Your task to perform on an android device: Go to battery settings Image 0: 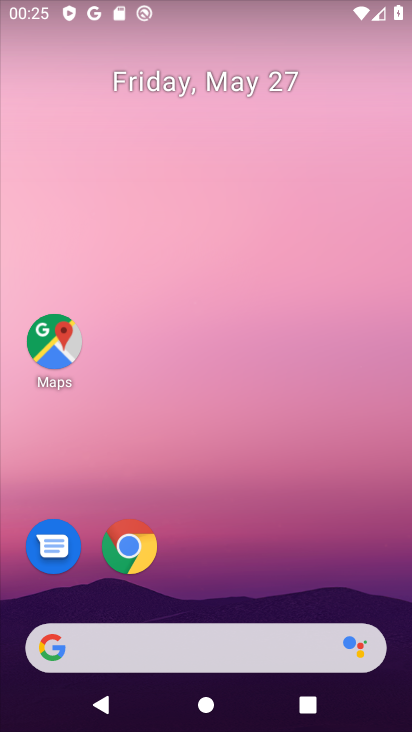
Step 0: drag from (297, 536) to (232, 58)
Your task to perform on an android device: Go to battery settings Image 1: 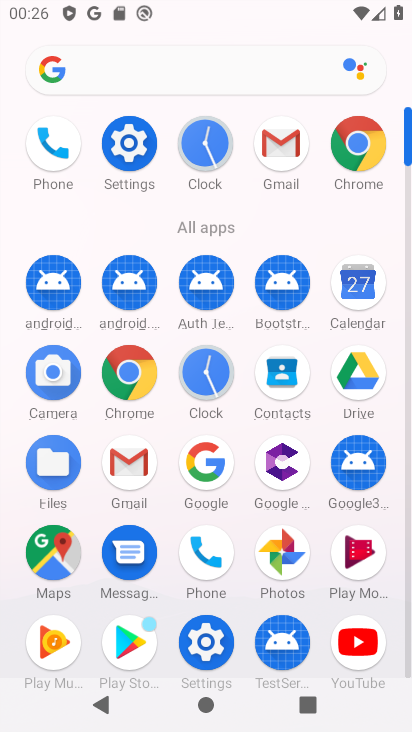
Step 1: click (195, 643)
Your task to perform on an android device: Go to battery settings Image 2: 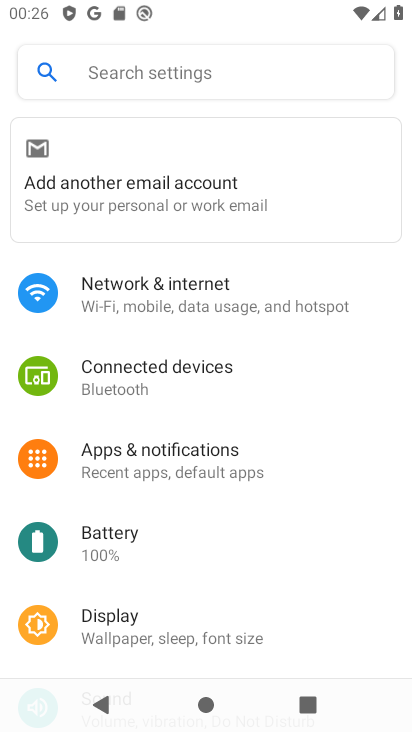
Step 2: drag from (212, 640) to (199, 273)
Your task to perform on an android device: Go to battery settings Image 3: 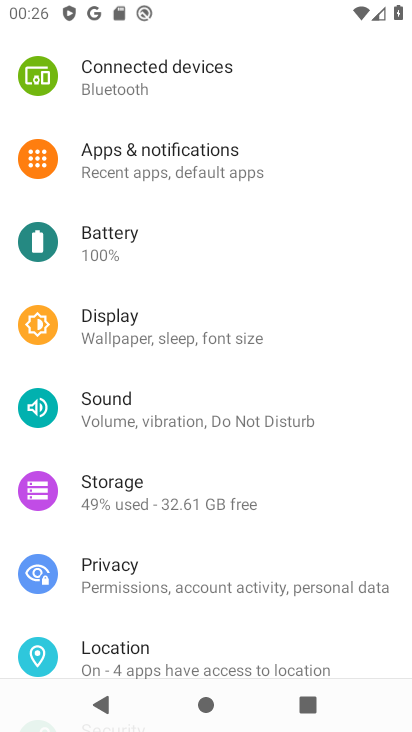
Step 3: drag from (208, 582) to (183, 192)
Your task to perform on an android device: Go to battery settings Image 4: 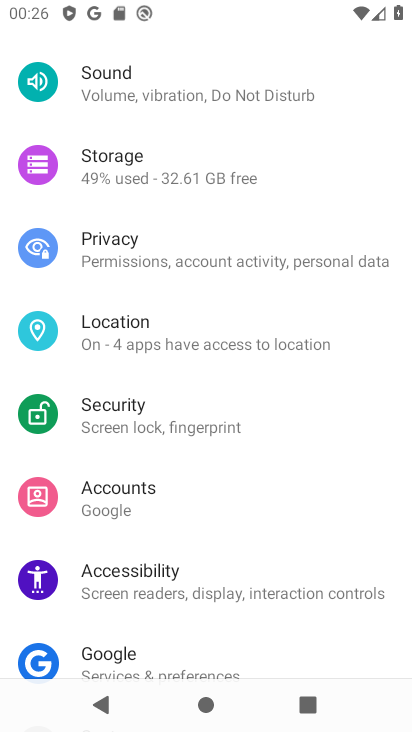
Step 4: drag from (158, 591) to (137, 197)
Your task to perform on an android device: Go to battery settings Image 5: 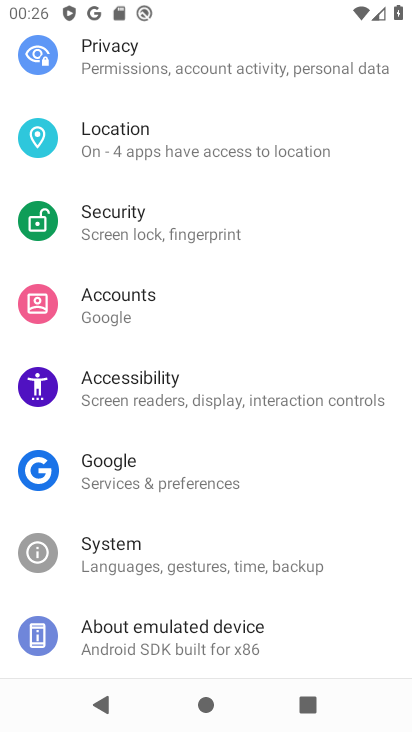
Step 5: drag from (189, 184) to (212, 548)
Your task to perform on an android device: Go to battery settings Image 6: 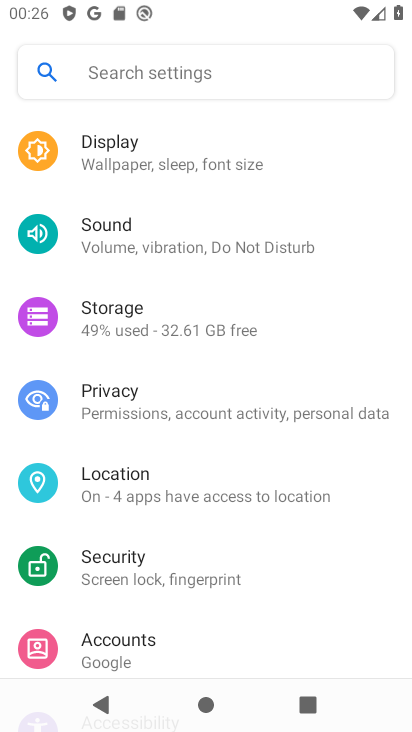
Step 6: drag from (173, 234) to (190, 482)
Your task to perform on an android device: Go to battery settings Image 7: 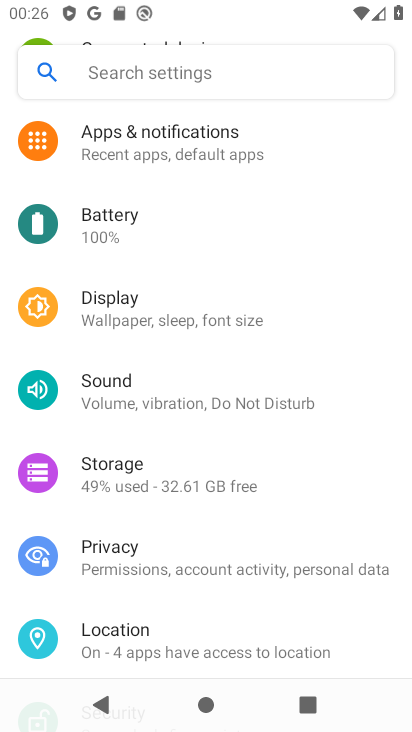
Step 7: click (144, 222)
Your task to perform on an android device: Go to battery settings Image 8: 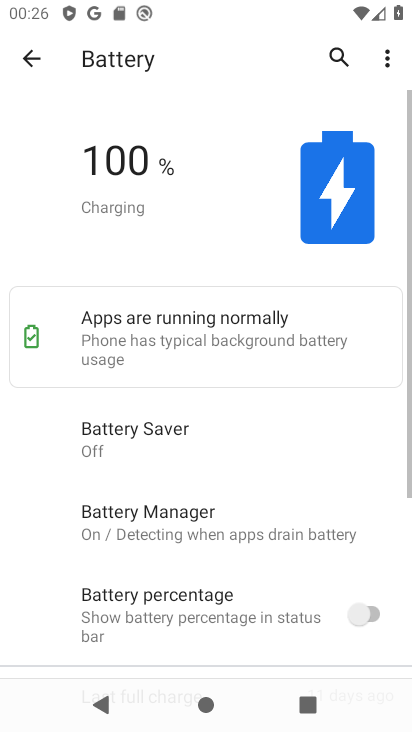
Step 8: task complete